Your task to perform on an android device: open app "Firefox Browser" (install if not already installed) and enter user name: "hashed@outlook.com" and password: "congestive" Image 0: 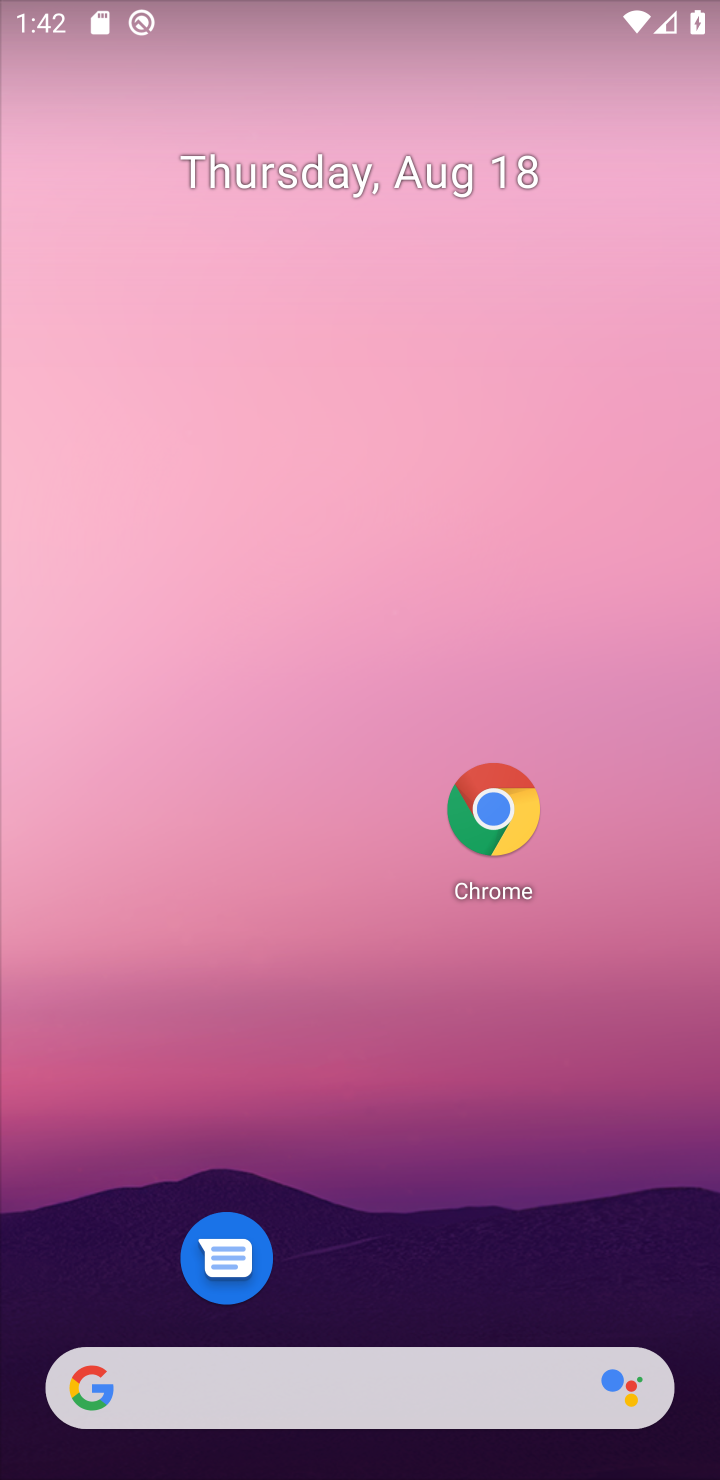
Step 0: drag from (277, 1222) to (411, 354)
Your task to perform on an android device: open app "Firefox Browser" (install if not already installed) and enter user name: "hashed@outlook.com" and password: "congestive" Image 1: 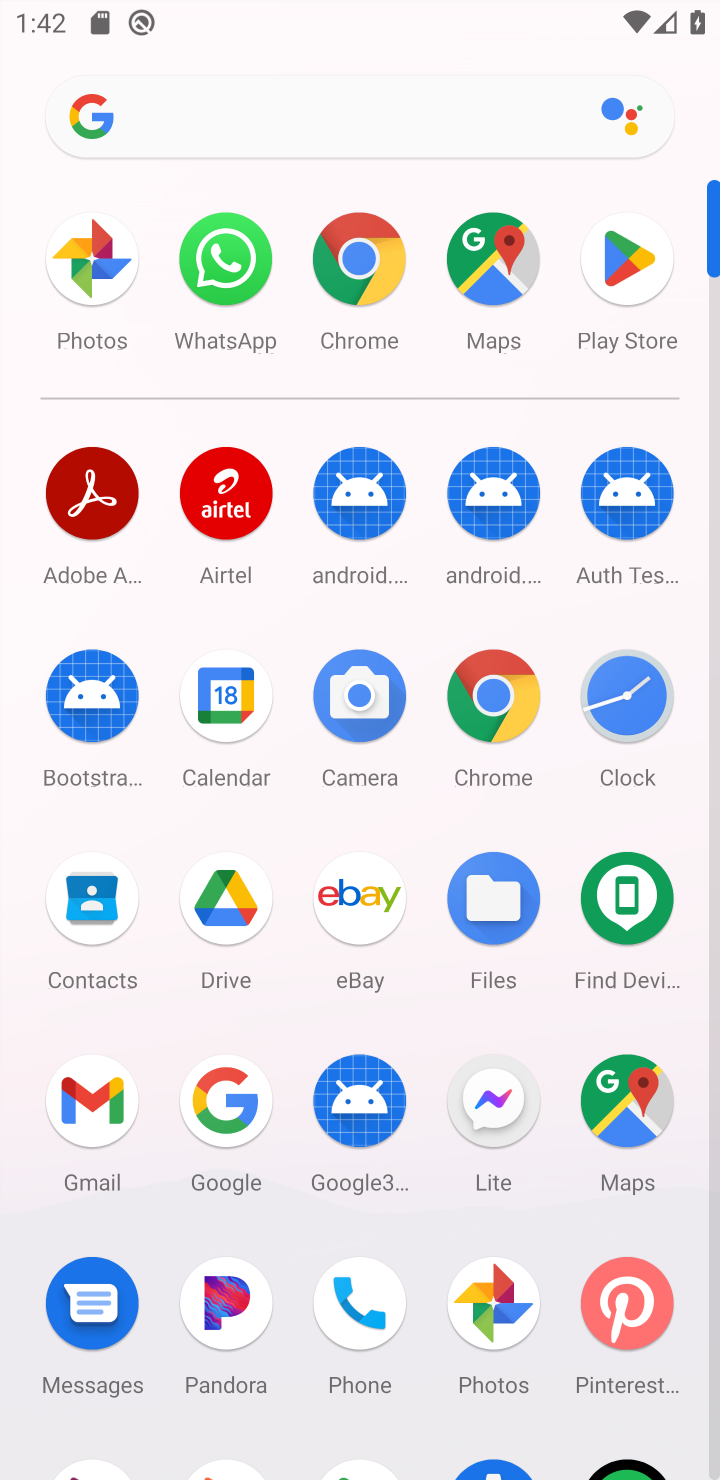
Step 1: click (606, 269)
Your task to perform on an android device: open app "Firefox Browser" (install if not already installed) and enter user name: "hashed@outlook.com" and password: "congestive" Image 2: 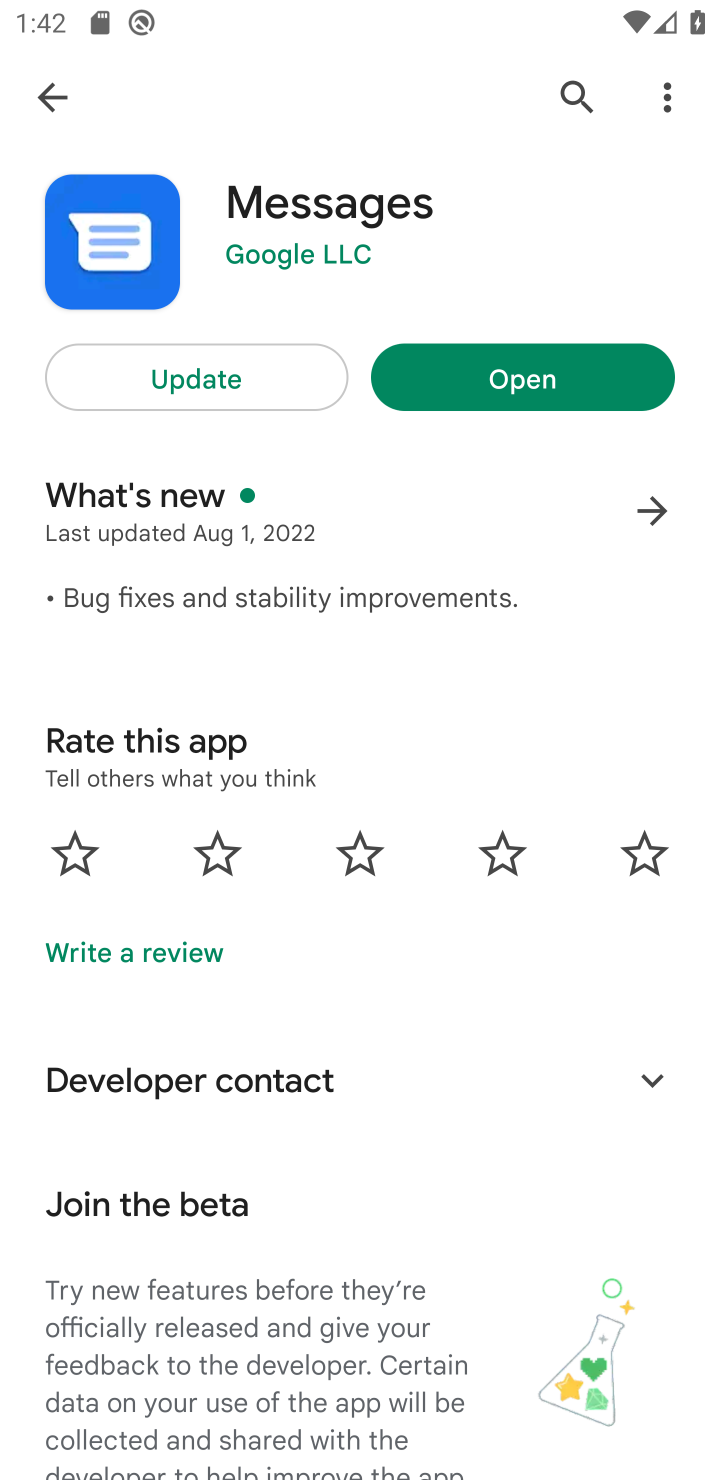
Step 2: click (74, 81)
Your task to perform on an android device: open app "Firefox Browser" (install if not already installed) and enter user name: "hashed@outlook.com" and password: "congestive" Image 3: 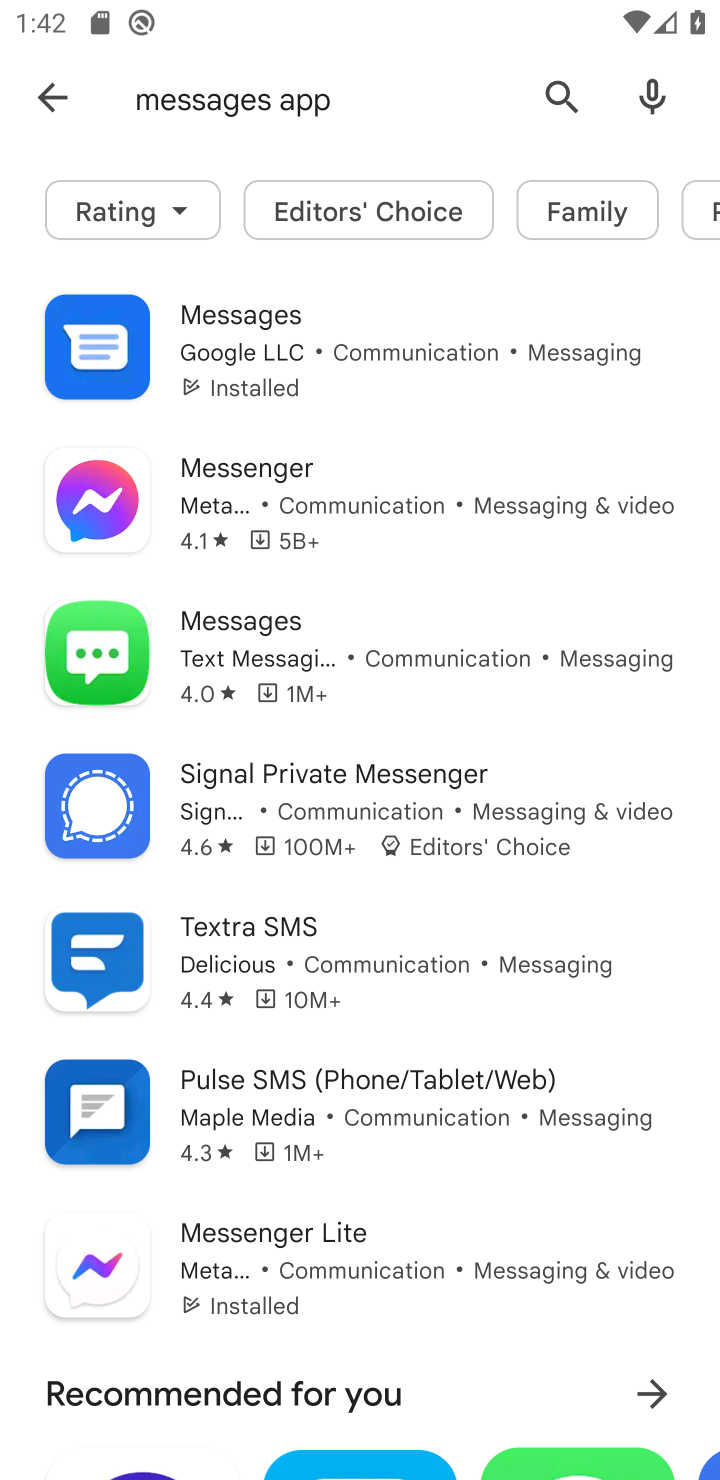
Step 3: click (73, 84)
Your task to perform on an android device: open app "Firefox Browser" (install if not already installed) and enter user name: "hashed@outlook.com" and password: "congestive" Image 4: 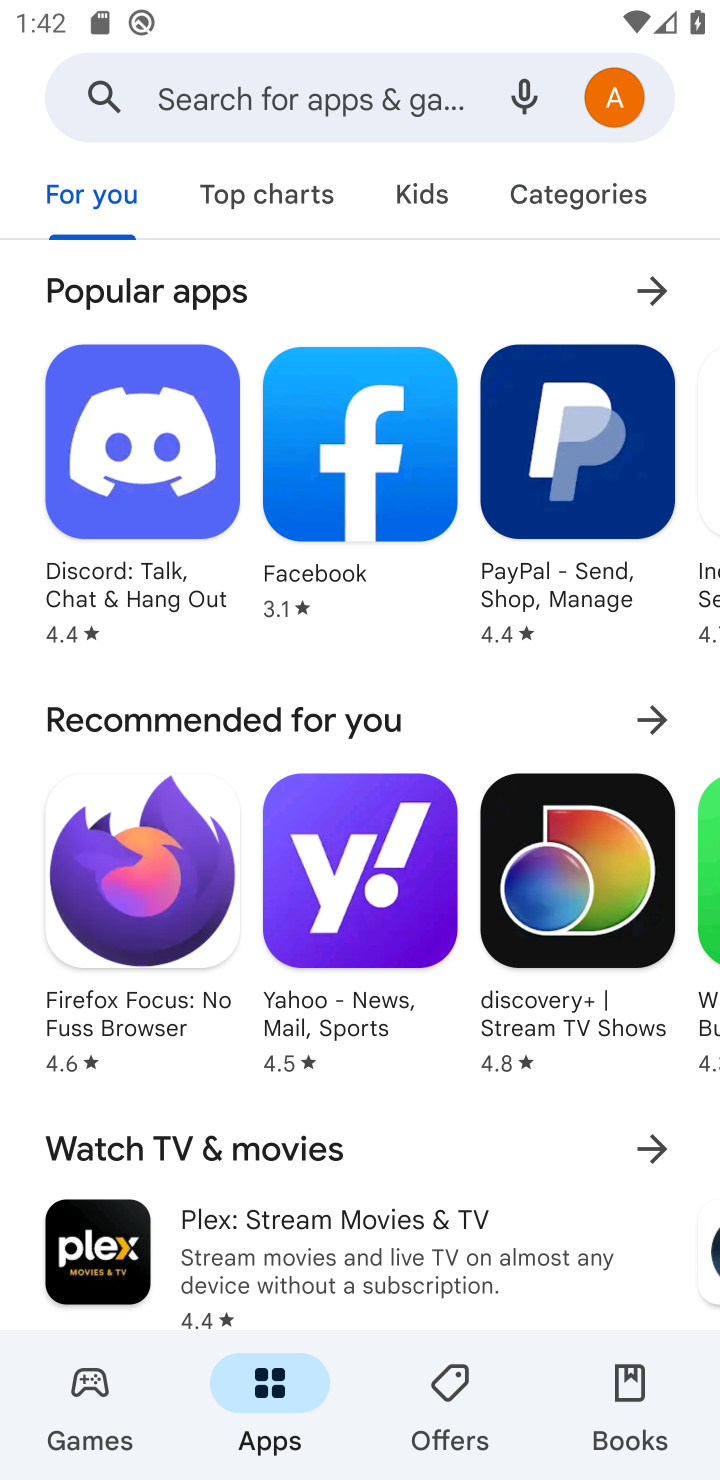
Step 4: click (196, 74)
Your task to perform on an android device: open app "Firefox Browser" (install if not already installed) and enter user name: "hashed@outlook.com" and password: "congestive" Image 5: 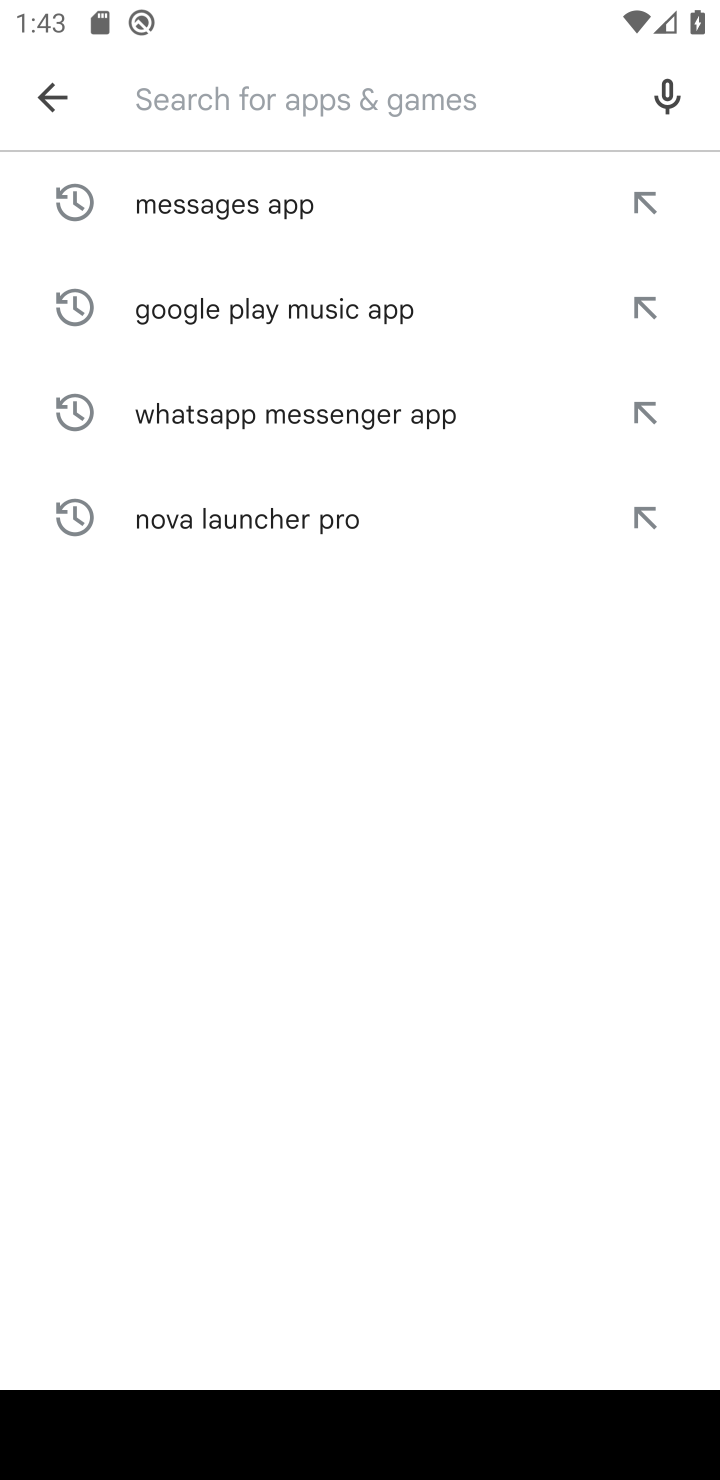
Step 5: type "firefox  browser "
Your task to perform on an android device: open app "Firefox Browser" (install if not already installed) and enter user name: "hashed@outlook.com" and password: "congestive" Image 6: 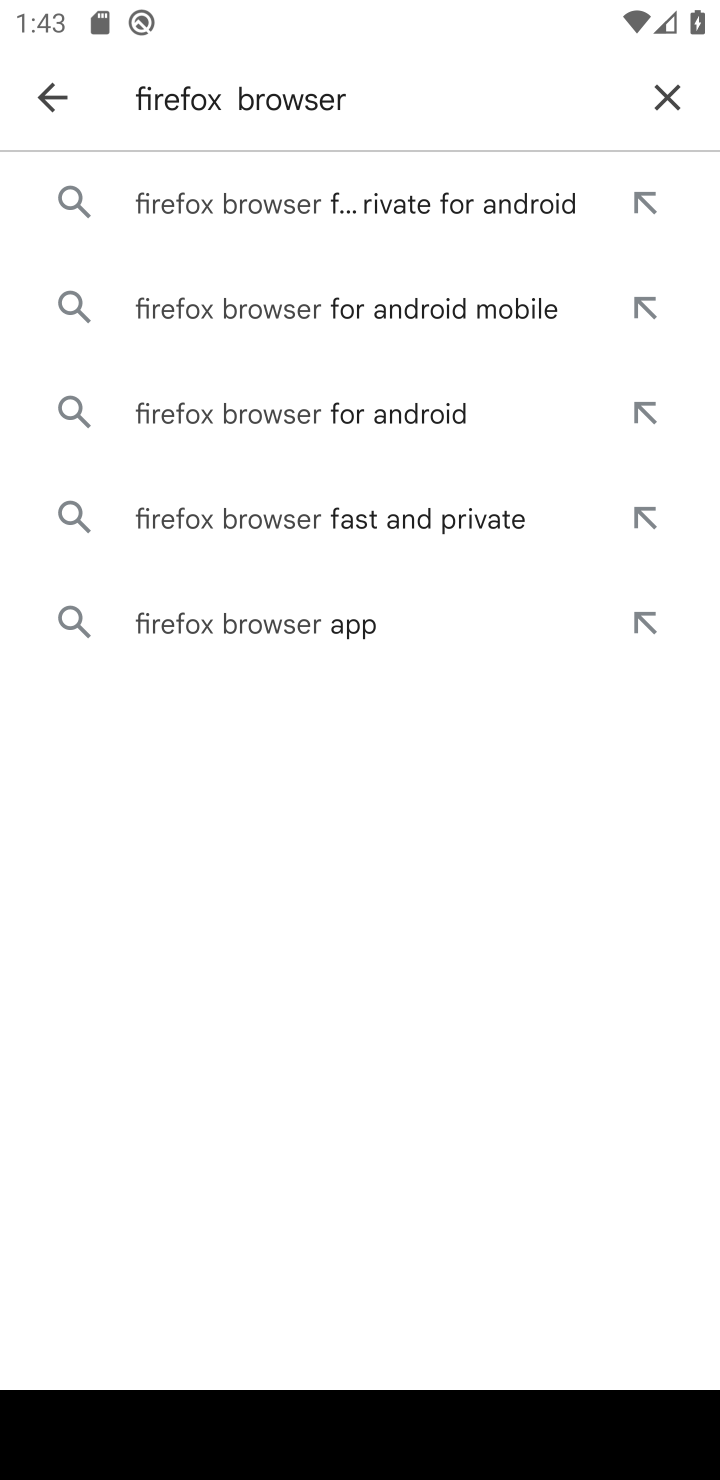
Step 6: click (322, 224)
Your task to perform on an android device: open app "Firefox Browser" (install if not already installed) and enter user name: "hashed@outlook.com" and password: "congestive" Image 7: 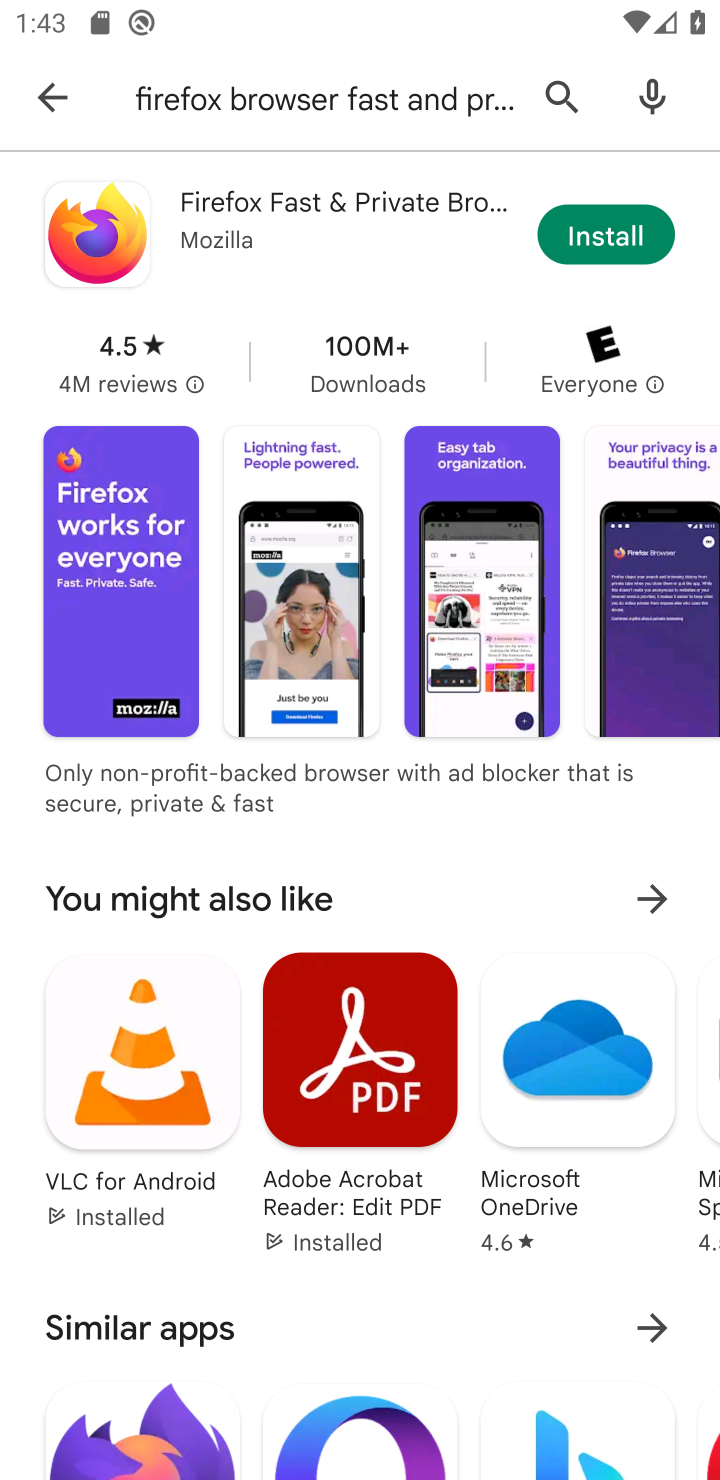
Step 7: click (622, 244)
Your task to perform on an android device: open app "Firefox Browser" (install if not already installed) and enter user name: "hashed@outlook.com" and password: "congestive" Image 8: 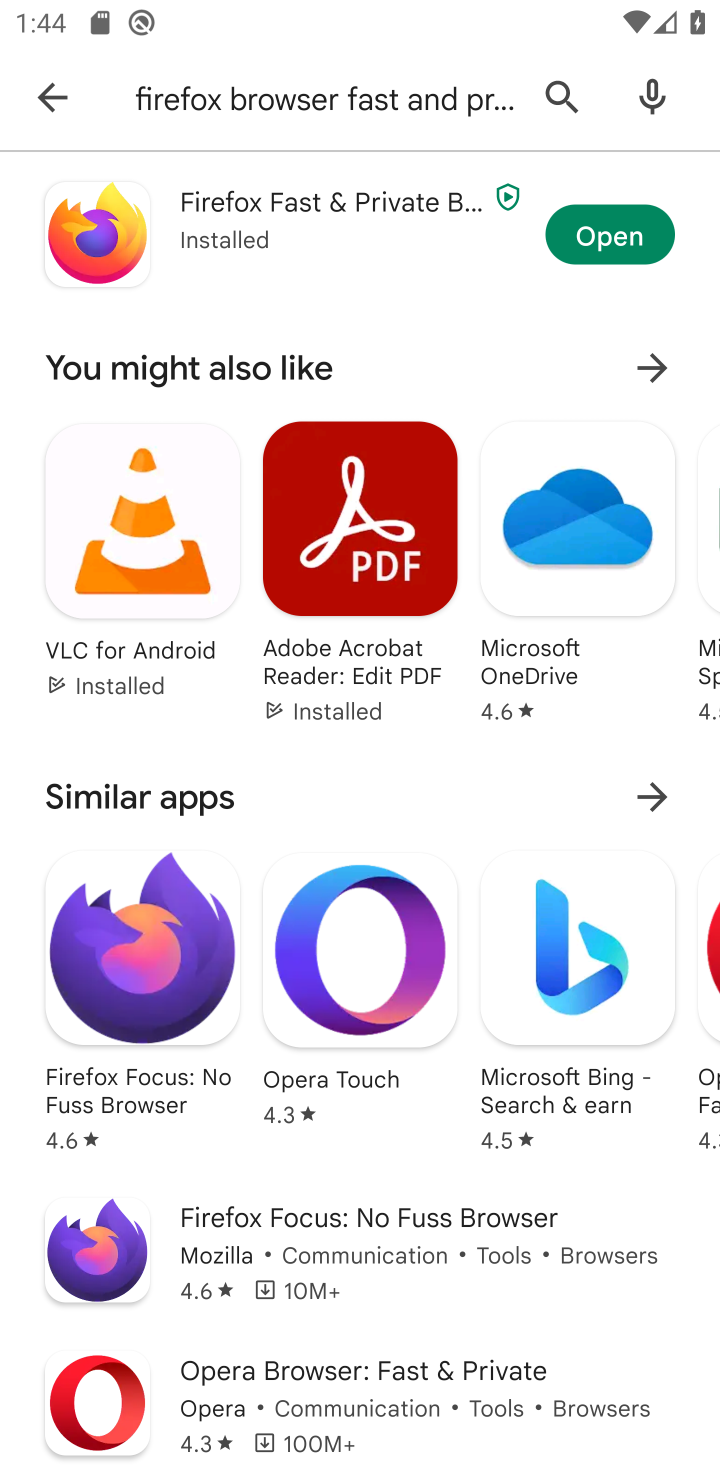
Step 8: click (635, 219)
Your task to perform on an android device: open app "Firefox Browser" (install if not already installed) and enter user name: "hashed@outlook.com" and password: "congestive" Image 9: 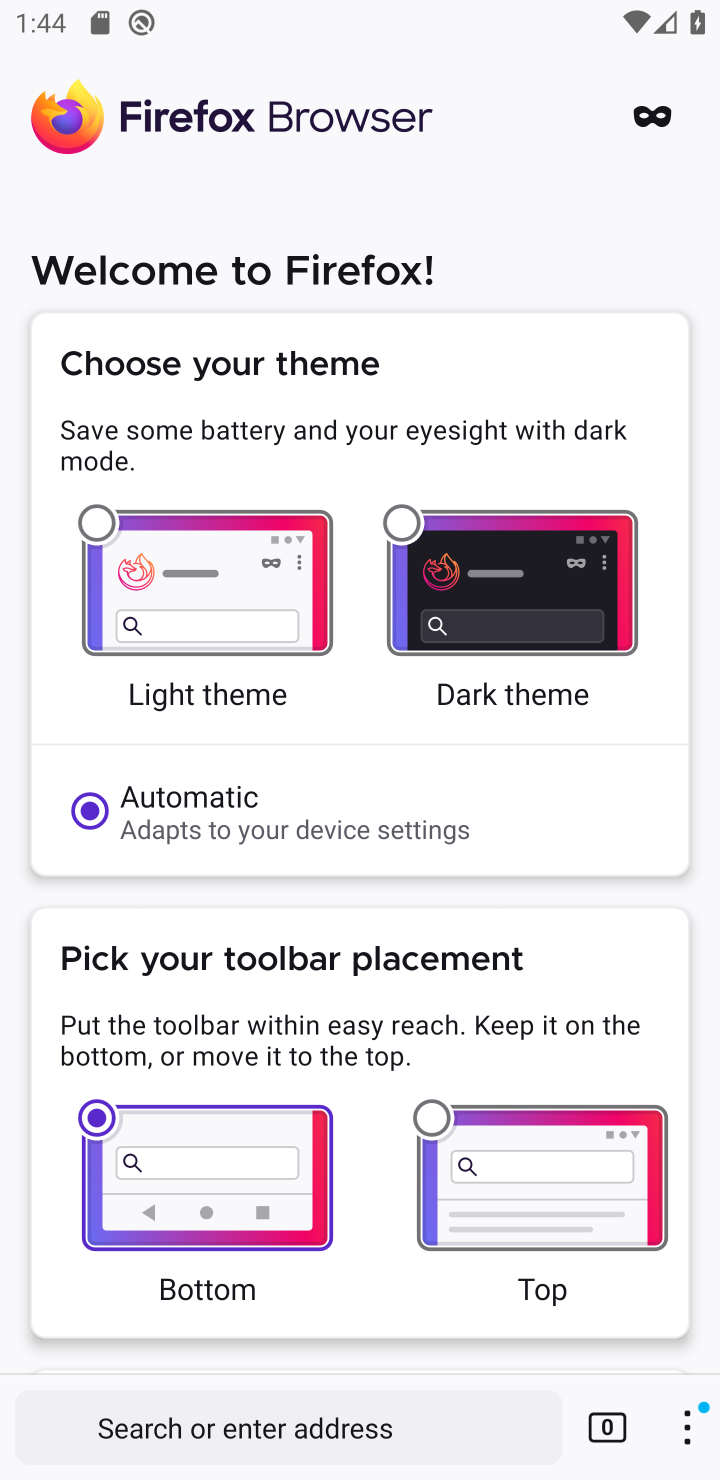
Step 9: task complete